Your task to perform on an android device: find snoozed emails in the gmail app Image 0: 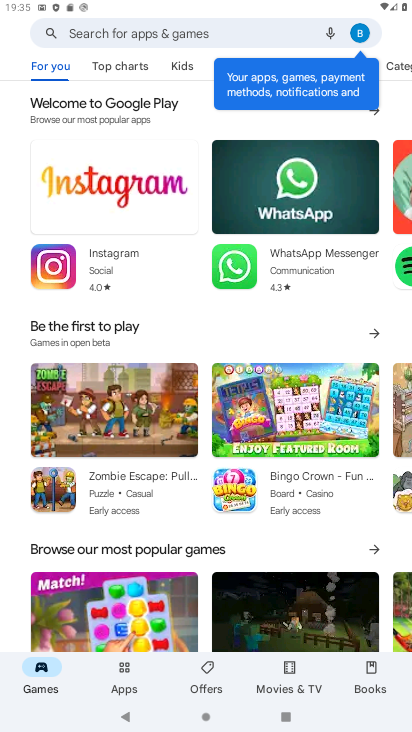
Step 0: press home button
Your task to perform on an android device: find snoozed emails in the gmail app Image 1: 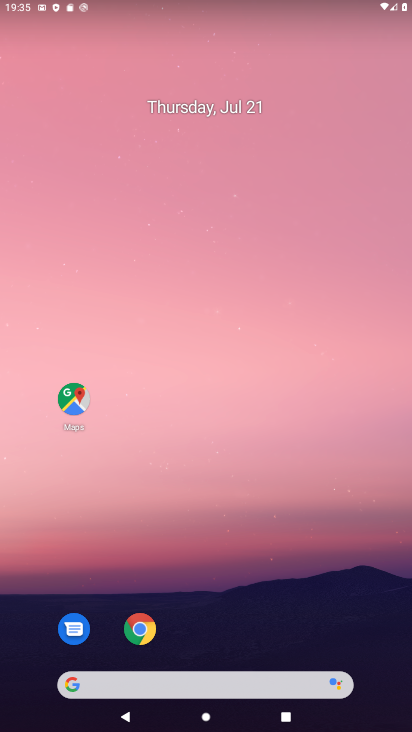
Step 1: drag from (142, 716) to (210, 127)
Your task to perform on an android device: find snoozed emails in the gmail app Image 2: 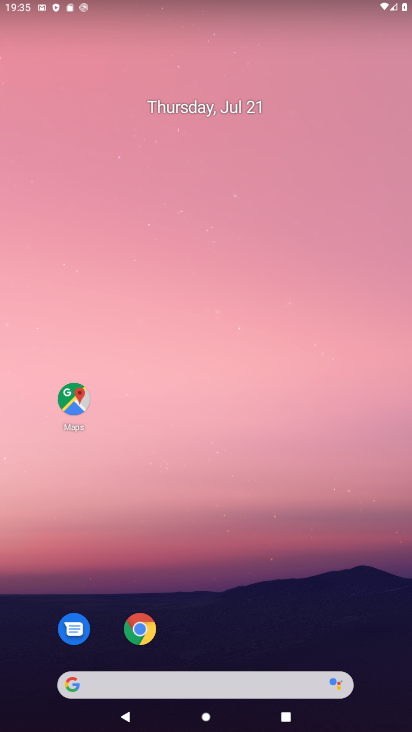
Step 2: drag from (20, 671) to (266, 160)
Your task to perform on an android device: find snoozed emails in the gmail app Image 3: 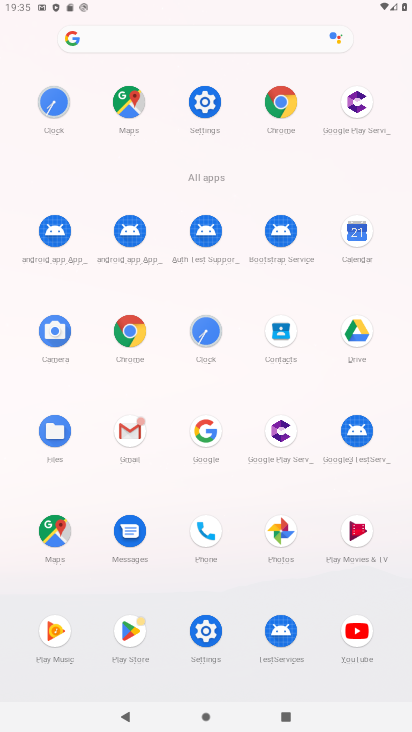
Step 3: click (132, 438)
Your task to perform on an android device: find snoozed emails in the gmail app Image 4: 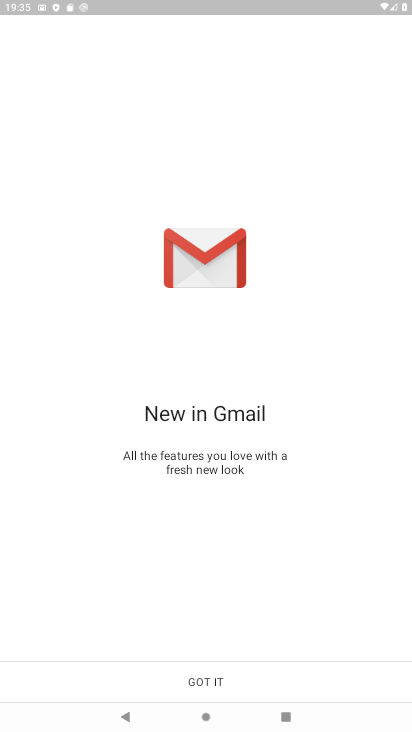
Step 4: click (229, 676)
Your task to perform on an android device: find snoozed emails in the gmail app Image 5: 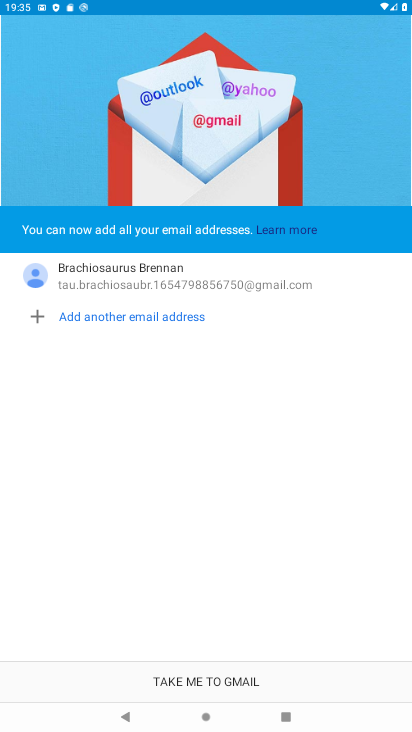
Step 5: click (217, 677)
Your task to perform on an android device: find snoozed emails in the gmail app Image 6: 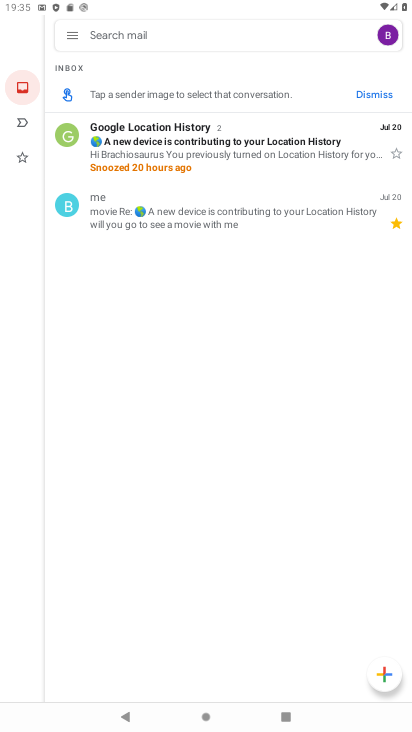
Step 6: click (78, 39)
Your task to perform on an android device: find snoozed emails in the gmail app Image 7: 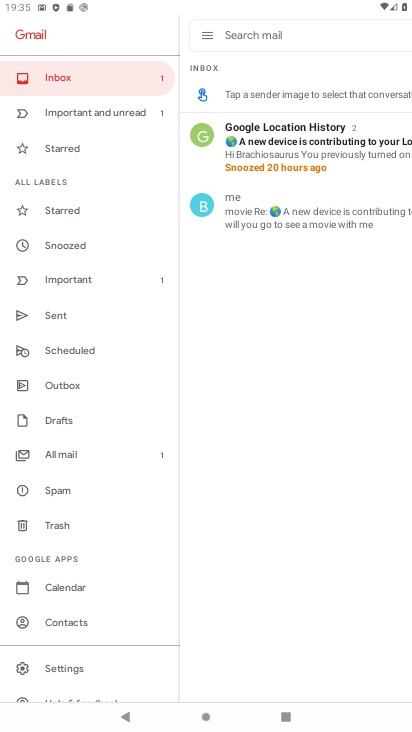
Step 7: click (57, 240)
Your task to perform on an android device: find snoozed emails in the gmail app Image 8: 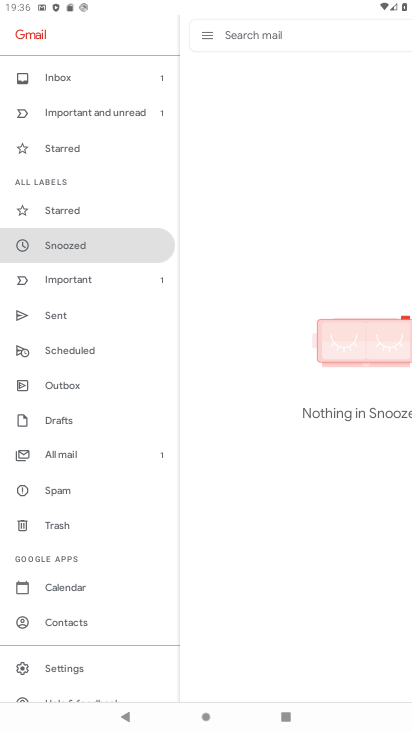
Step 8: click (41, 248)
Your task to perform on an android device: find snoozed emails in the gmail app Image 9: 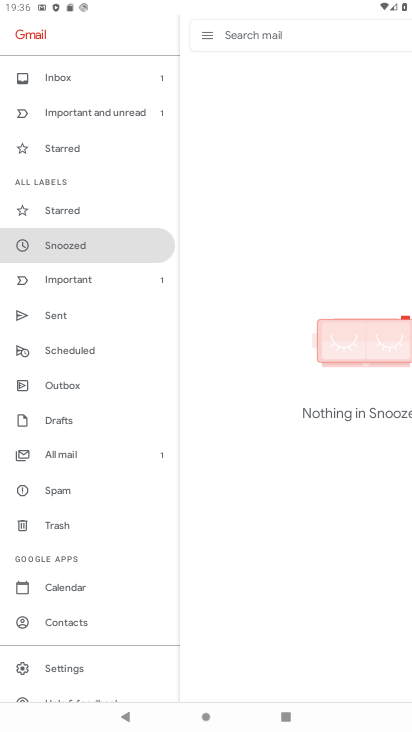
Step 9: task complete